Your task to perform on an android device: What's on my calendar today? Image 0: 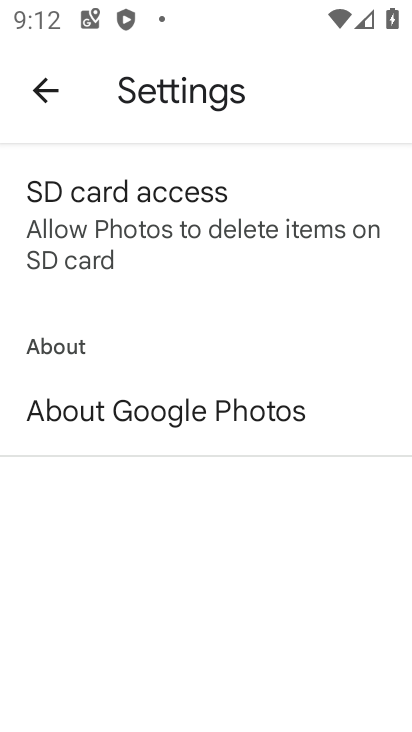
Step 0: press home button
Your task to perform on an android device: What's on my calendar today? Image 1: 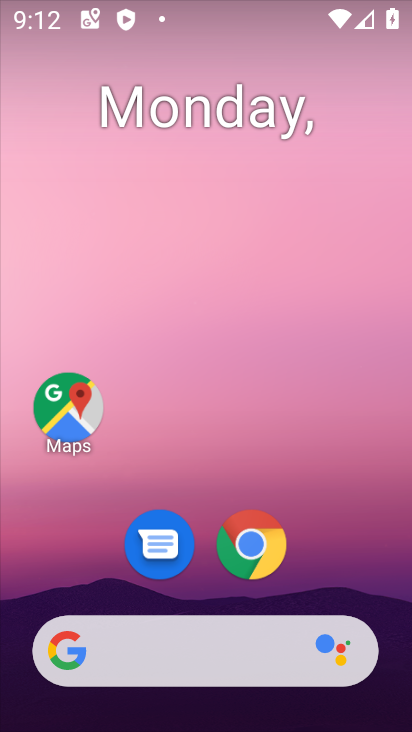
Step 1: drag from (329, 473) to (276, 61)
Your task to perform on an android device: What's on my calendar today? Image 2: 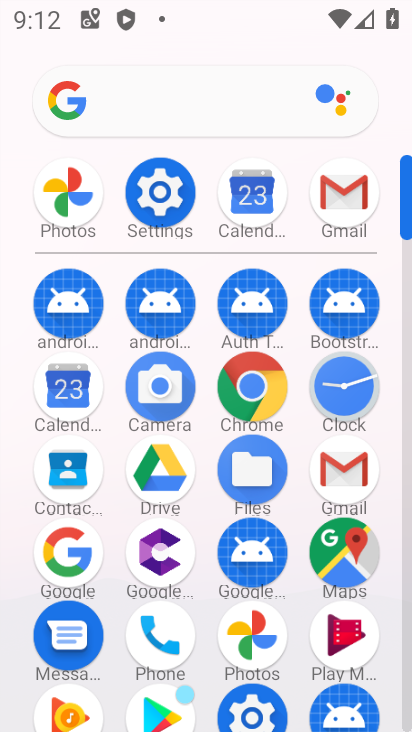
Step 2: click (64, 388)
Your task to perform on an android device: What's on my calendar today? Image 3: 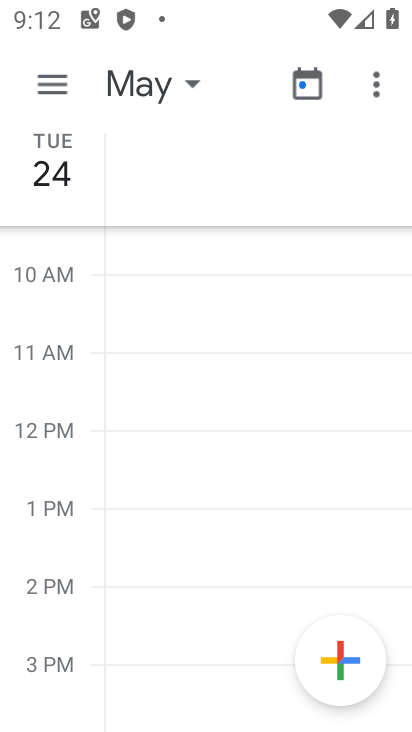
Step 3: click (179, 79)
Your task to perform on an android device: What's on my calendar today? Image 4: 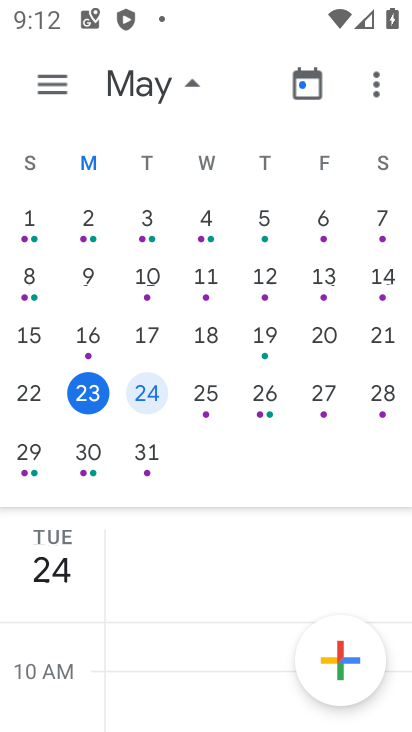
Step 4: click (92, 402)
Your task to perform on an android device: What's on my calendar today? Image 5: 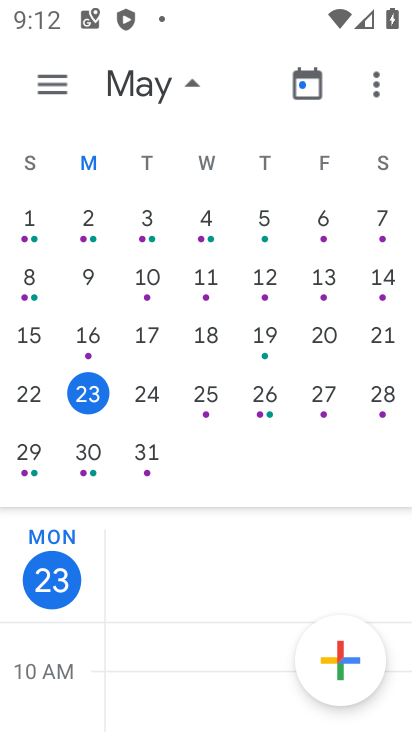
Step 5: task complete